Your task to perform on an android device: Go to display settings Image 0: 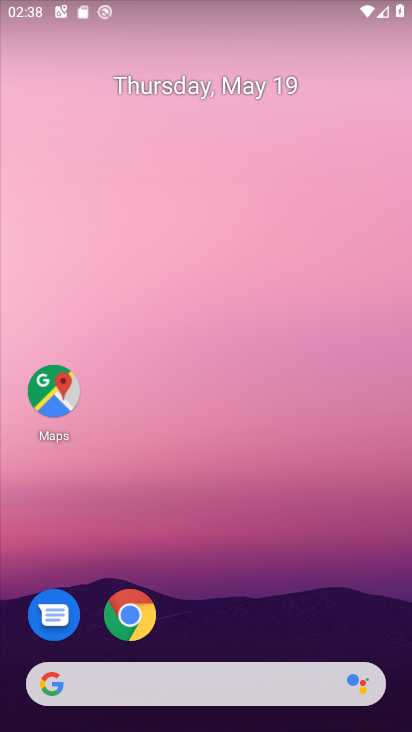
Step 0: drag from (322, 557) to (220, 11)
Your task to perform on an android device: Go to display settings Image 1: 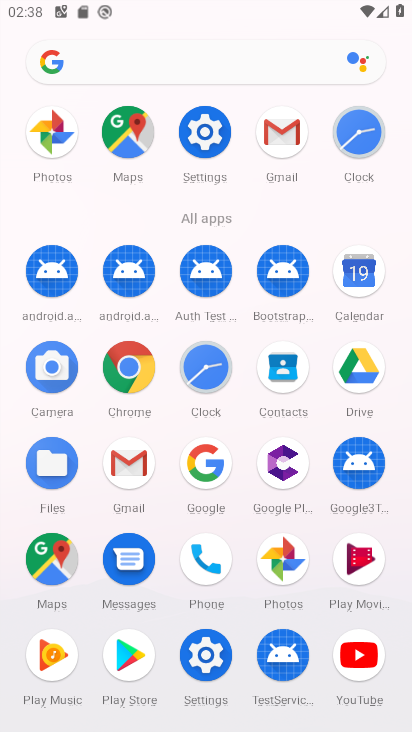
Step 1: click (205, 654)
Your task to perform on an android device: Go to display settings Image 2: 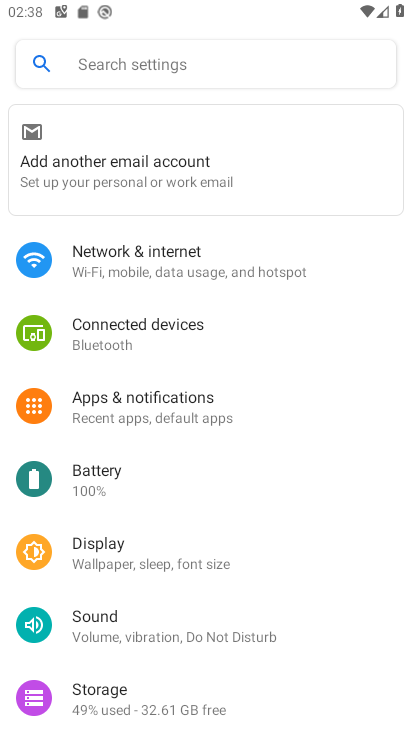
Step 2: click (127, 568)
Your task to perform on an android device: Go to display settings Image 3: 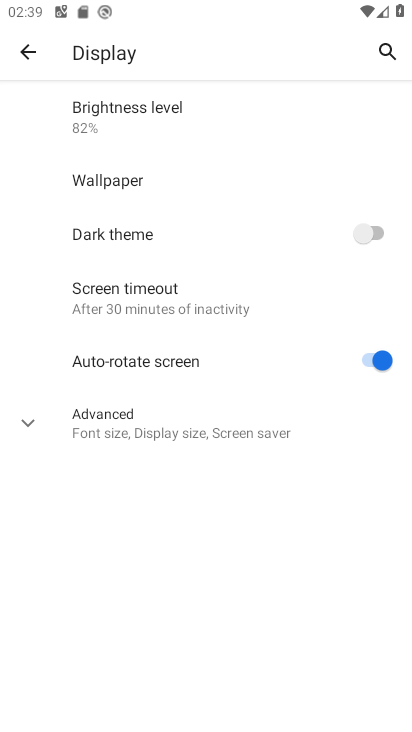
Step 3: click (28, 425)
Your task to perform on an android device: Go to display settings Image 4: 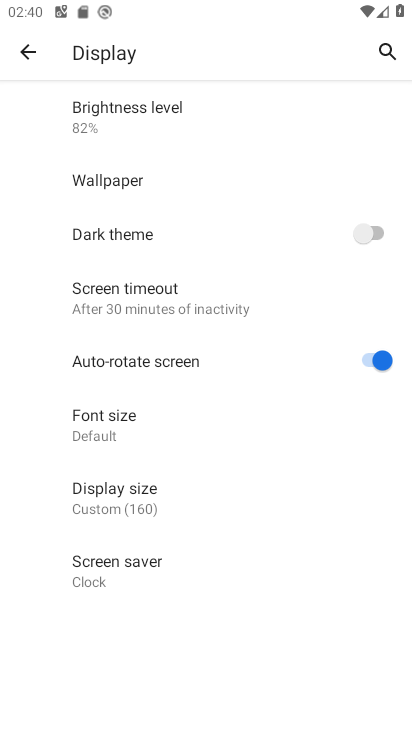
Step 4: task complete